Your task to perform on an android device: create a new album in the google photos Image 0: 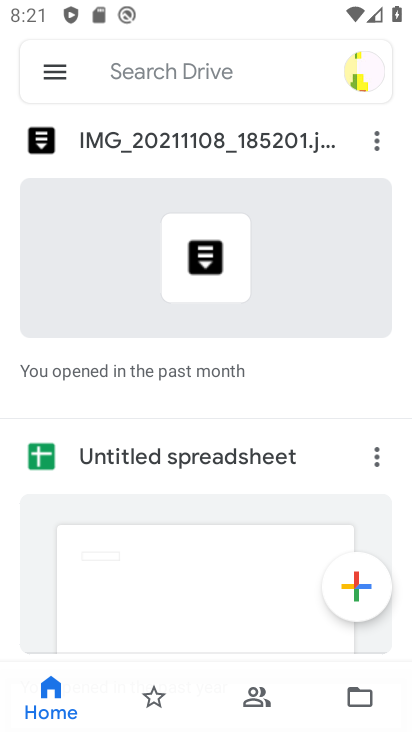
Step 0: press back button
Your task to perform on an android device: create a new album in the google photos Image 1: 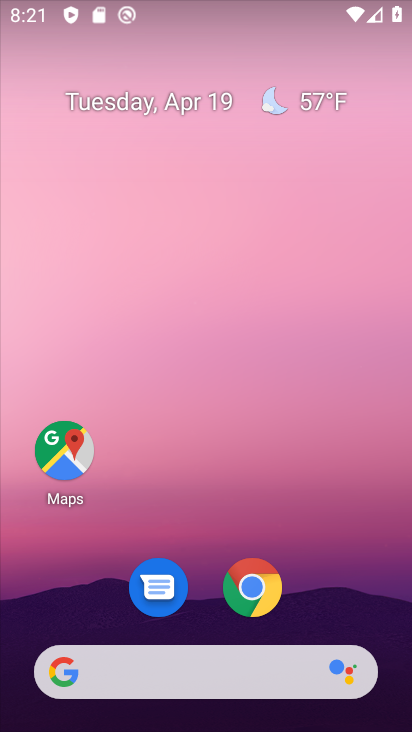
Step 1: drag from (71, 626) to (213, 59)
Your task to perform on an android device: create a new album in the google photos Image 2: 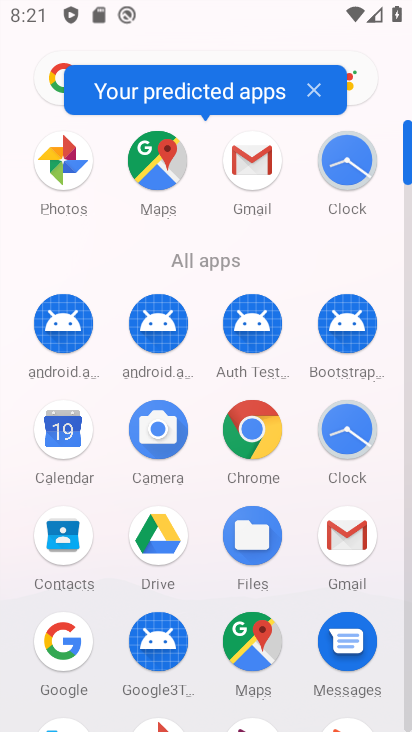
Step 2: drag from (192, 612) to (273, 278)
Your task to perform on an android device: create a new album in the google photos Image 3: 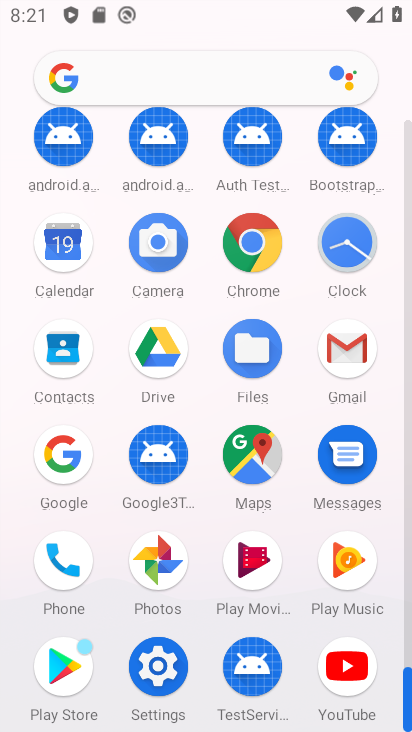
Step 3: click (154, 557)
Your task to perform on an android device: create a new album in the google photos Image 4: 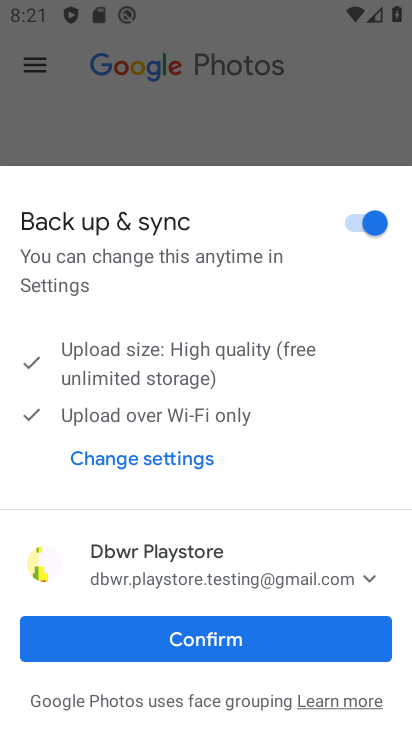
Step 4: click (215, 646)
Your task to perform on an android device: create a new album in the google photos Image 5: 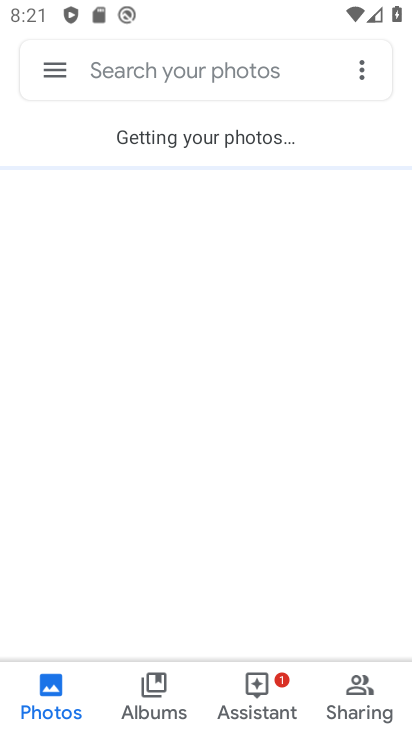
Step 5: click (364, 86)
Your task to perform on an android device: create a new album in the google photos Image 6: 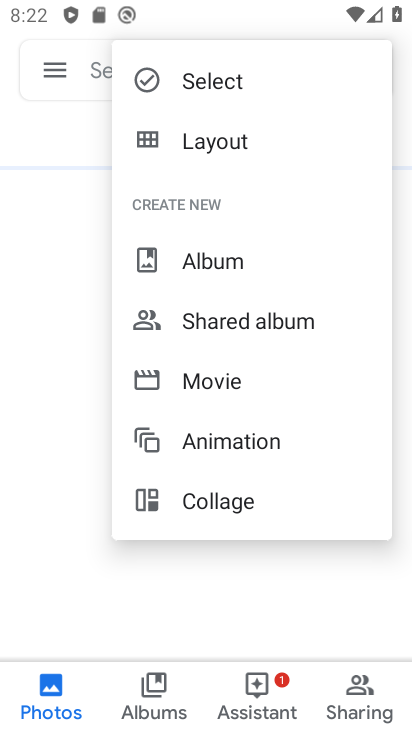
Step 6: click (241, 281)
Your task to perform on an android device: create a new album in the google photos Image 7: 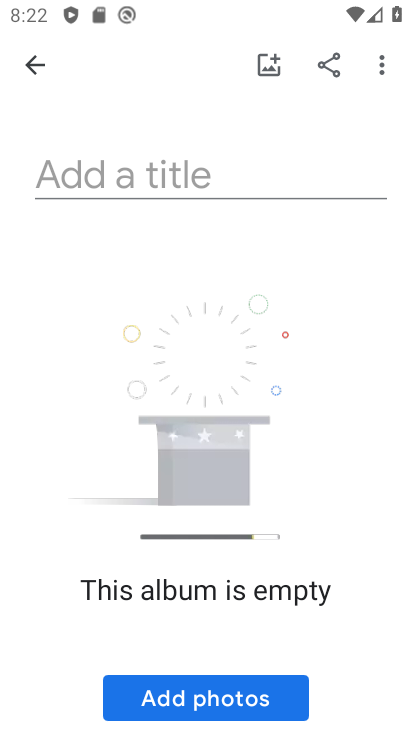
Step 7: click (181, 181)
Your task to perform on an android device: create a new album in the google photos Image 8: 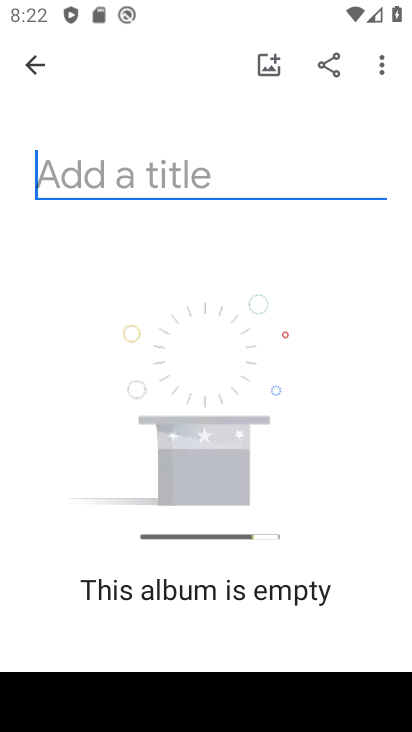
Step 8: type "pictures 1"
Your task to perform on an android device: create a new album in the google photos Image 9: 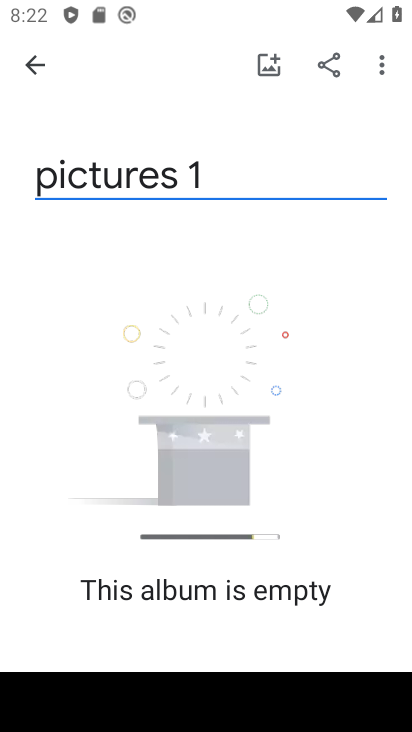
Step 9: click (277, 64)
Your task to perform on an android device: create a new album in the google photos Image 10: 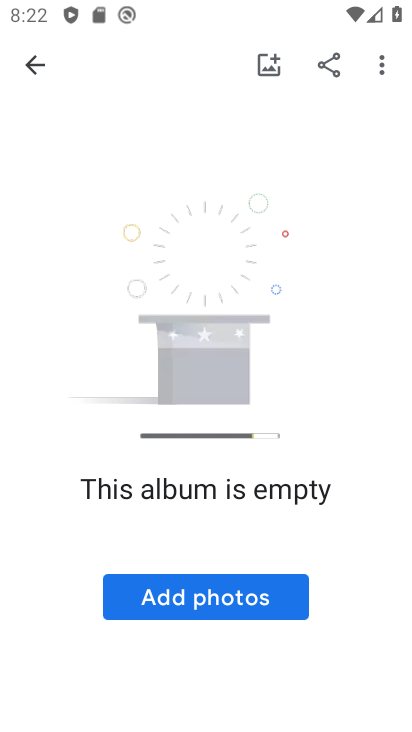
Step 10: click (239, 620)
Your task to perform on an android device: create a new album in the google photos Image 11: 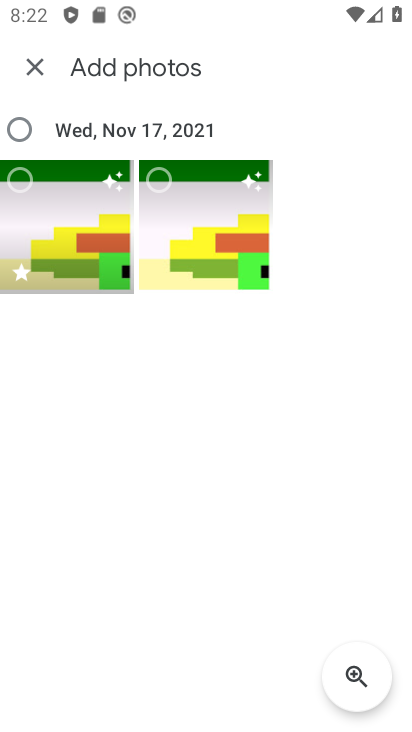
Step 11: click (23, 133)
Your task to perform on an android device: create a new album in the google photos Image 12: 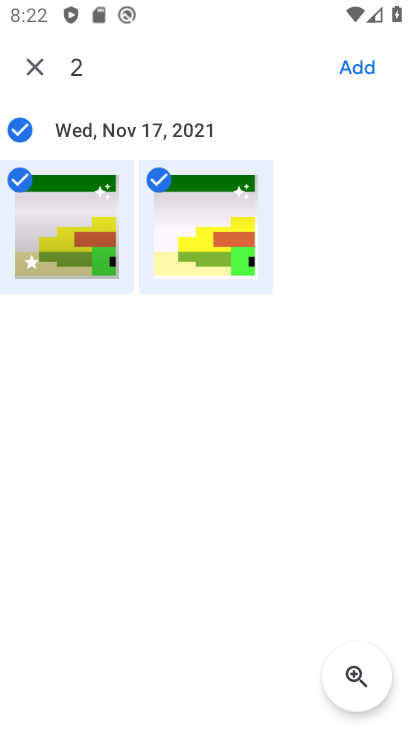
Step 12: click (356, 66)
Your task to perform on an android device: create a new album in the google photos Image 13: 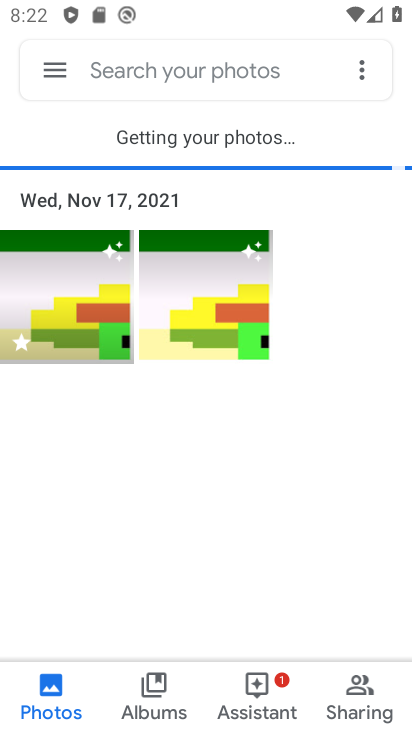
Step 13: click (68, 291)
Your task to perform on an android device: create a new album in the google photos Image 14: 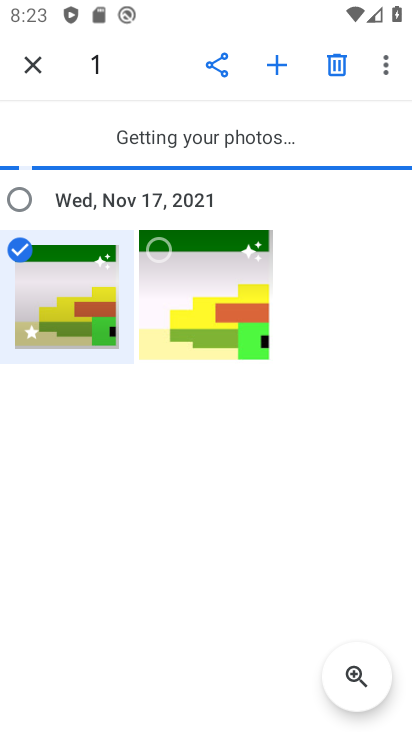
Step 14: click (223, 303)
Your task to perform on an android device: create a new album in the google photos Image 15: 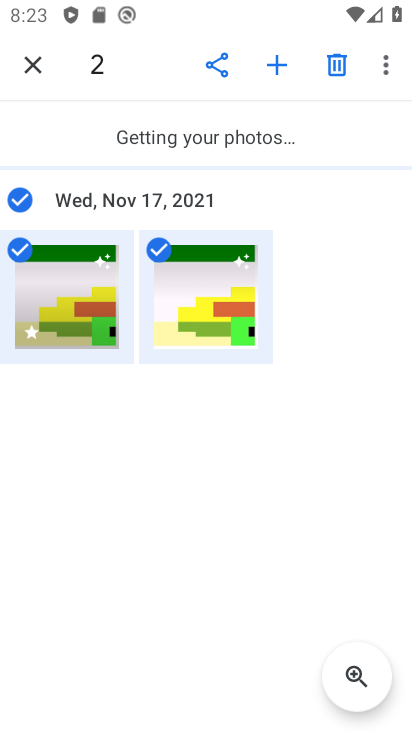
Step 15: click (280, 73)
Your task to perform on an android device: create a new album in the google photos Image 16: 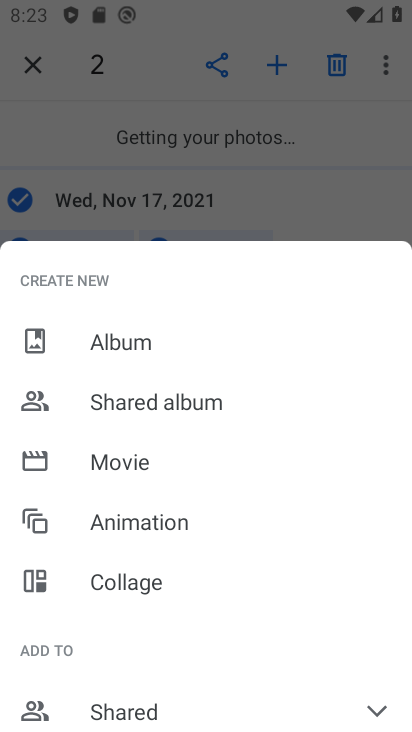
Step 16: click (201, 354)
Your task to perform on an android device: create a new album in the google photos Image 17: 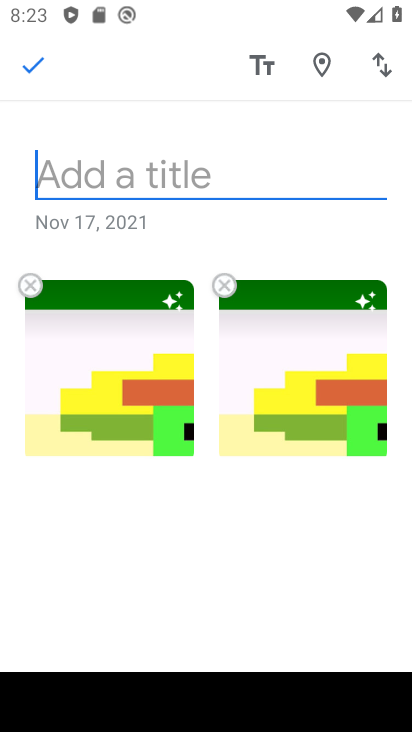
Step 17: type "huhhh"
Your task to perform on an android device: create a new album in the google photos Image 18: 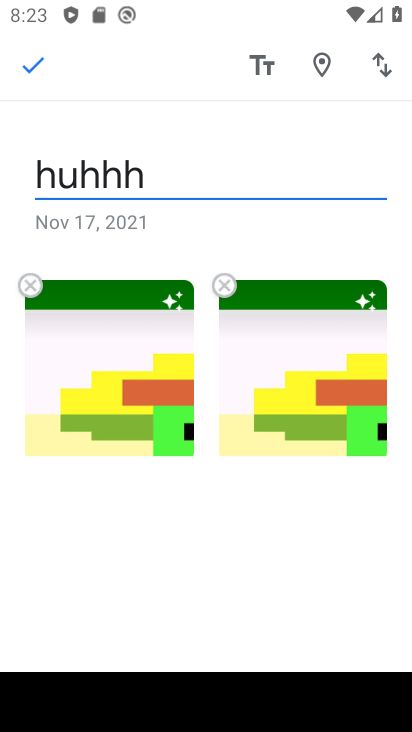
Step 18: click (40, 68)
Your task to perform on an android device: create a new album in the google photos Image 19: 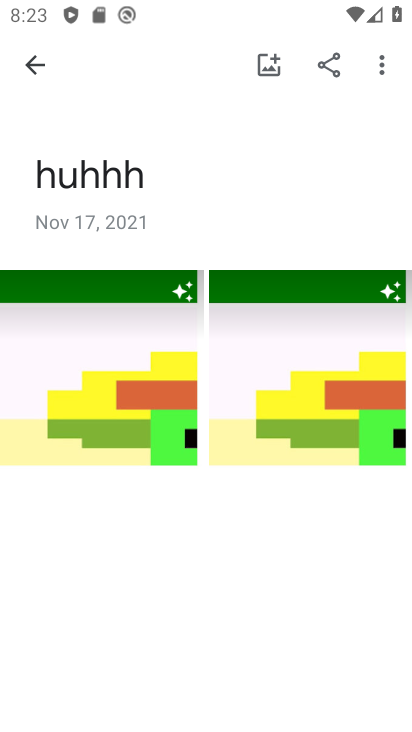
Step 19: task complete